Your task to perform on an android device: open app "Walmart Shopping & Grocery" (install if not already installed) Image 0: 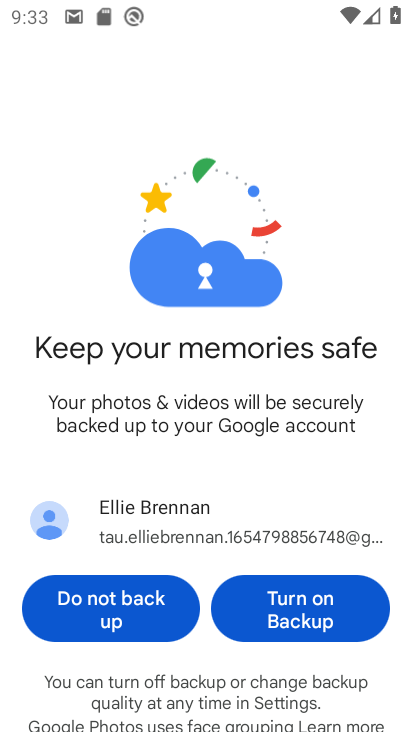
Step 0: press home button
Your task to perform on an android device: open app "Walmart Shopping & Grocery" (install if not already installed) Image 1: 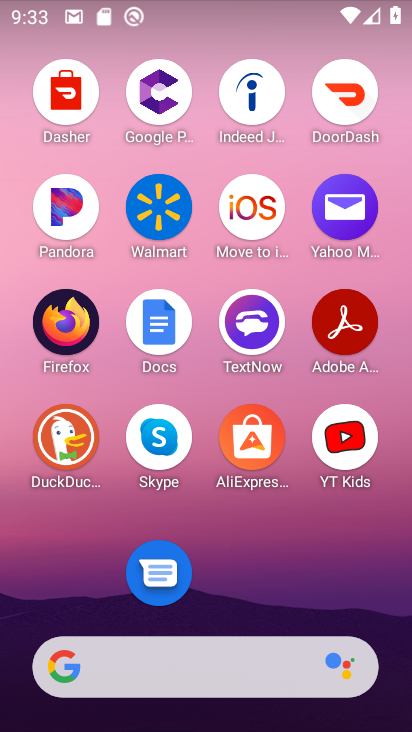
Step 1: drag from (226, 609) to (356, 23)
Your task to perform on an android device: open app "Walmart Shopping & Grocery" (install if not already installed) Image 2: 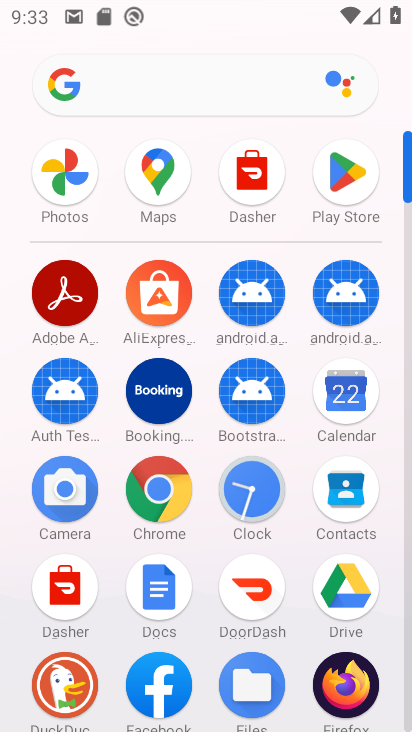
Step 2: click (339, 209)
Your task to perform on an android device: open app "Walmart Shopping & Grocery" (install if not already installed) Image 3: 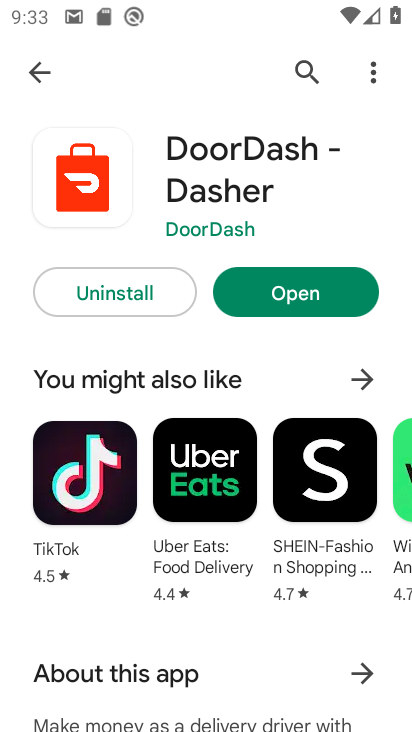
Step 3: click (41, 69)
Your task to perform on an android device: open app "Walmart Shopping & Grocery" (install if not already installed) Image 4: 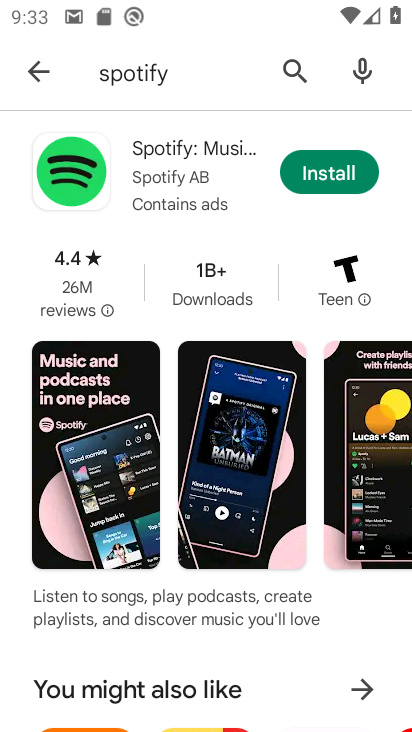
Step 4: click (151, 84)
Your task to perform on an android device: open app "Walmart Shopping & Grocery" (install if not already installed) Image 5: 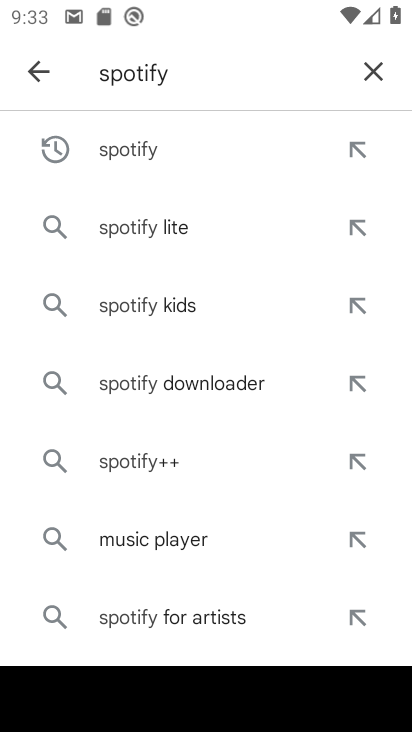
Step 5: click (366, 76)
Your task to perform on an android device: open app "Walmart Shopping & Grocery" (install if not already installed) Image 6: 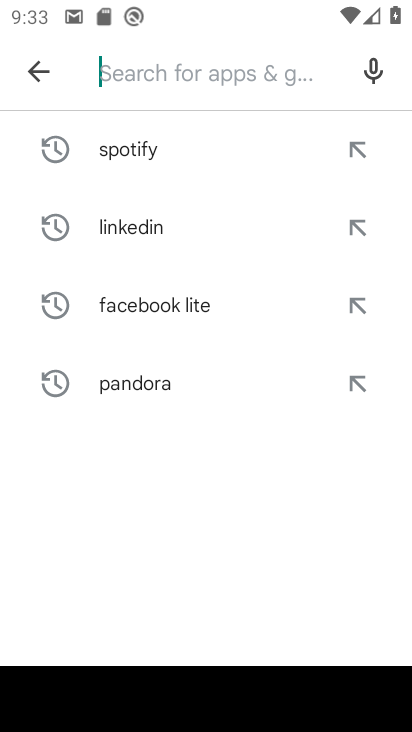
Step 6: type "Walmart"
Your task to perform on an android device: open app "Walmart Shopping & Grocery" (install if not already installed) Image 7: 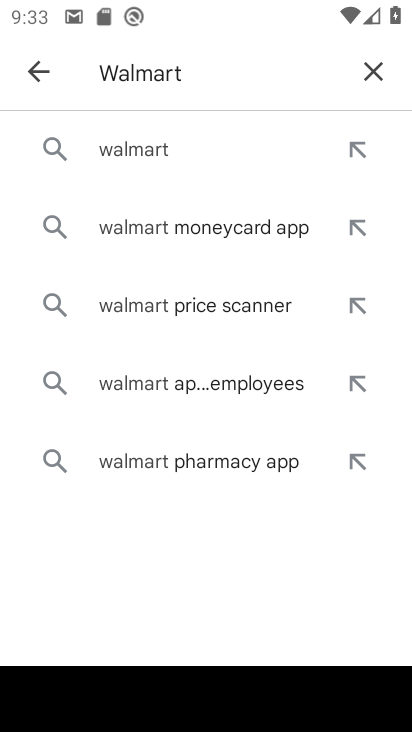
Step 7: click (167, 135)
Your task to perform on an android device: open app "Walmart Shopping & Grocery" (install if not already installed) Image 8: 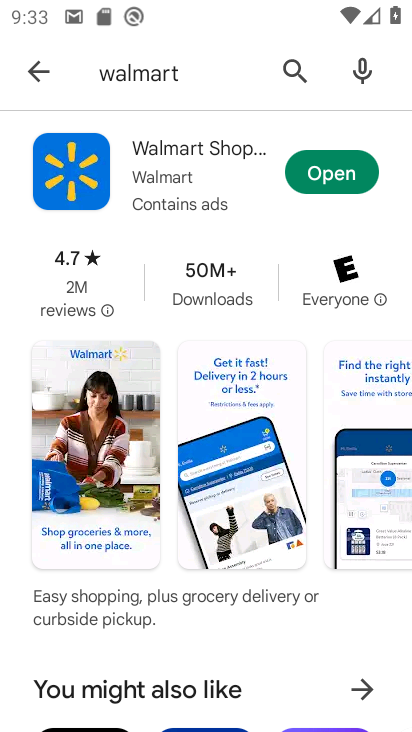
Step 8: click (347, 170)
Your task to perform on an android device: open app "Walmart Shopping & Grocery" (install if not already installed) Image 9: 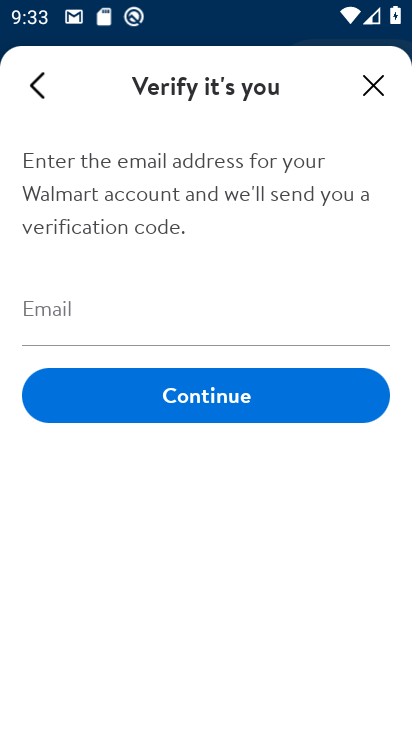
Step 9: task complete